Your task to perform on an android device: Do I have any events today? Image 0: 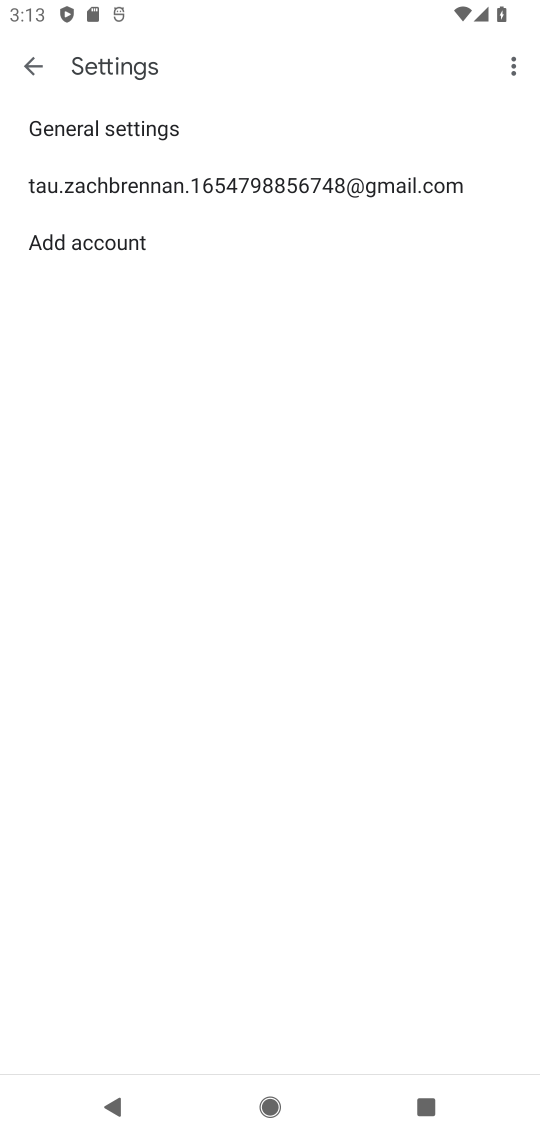
Step 0: press home button
Your task to perform on an android device: Do I have any events today? Image 1: 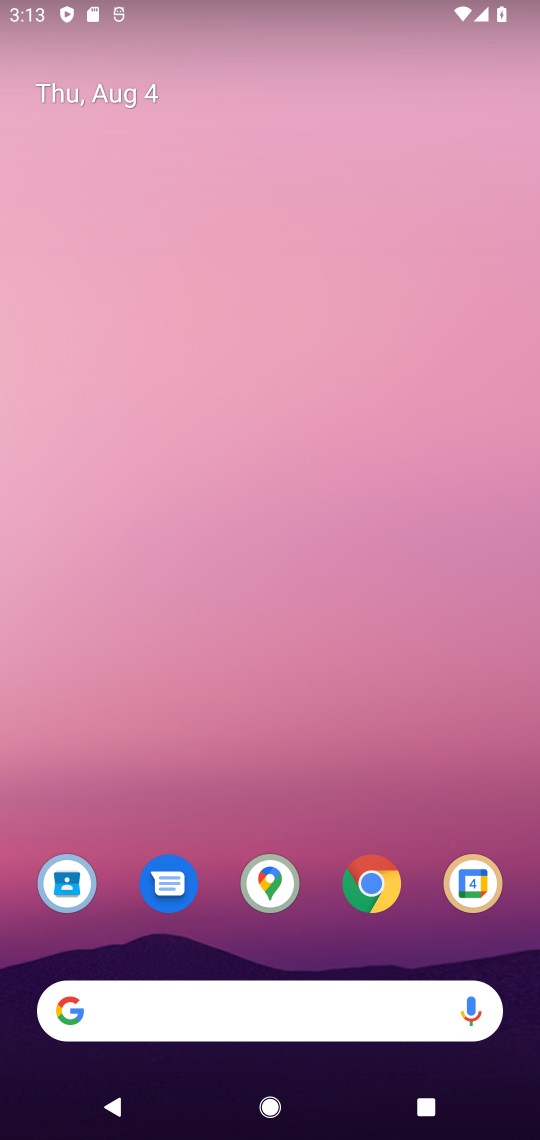
Step 1: drag from (421, 782) to (172, 100)
Your task to perform on an android device: Do I have any events today? Image 2: 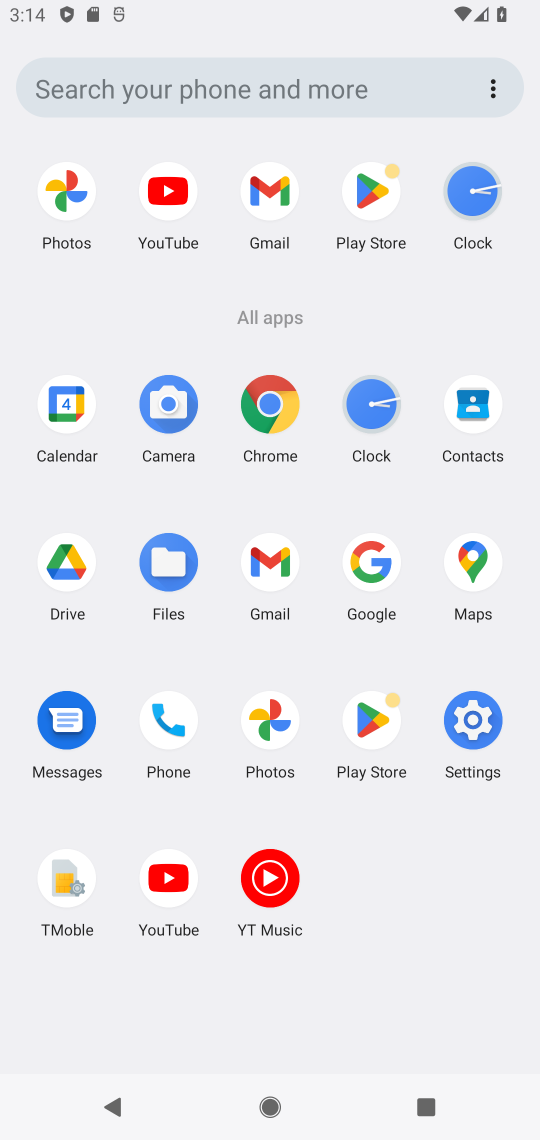
Step 2: click (86, 422)
Your task to perform on an android device: Do I have any events today? Image 3: 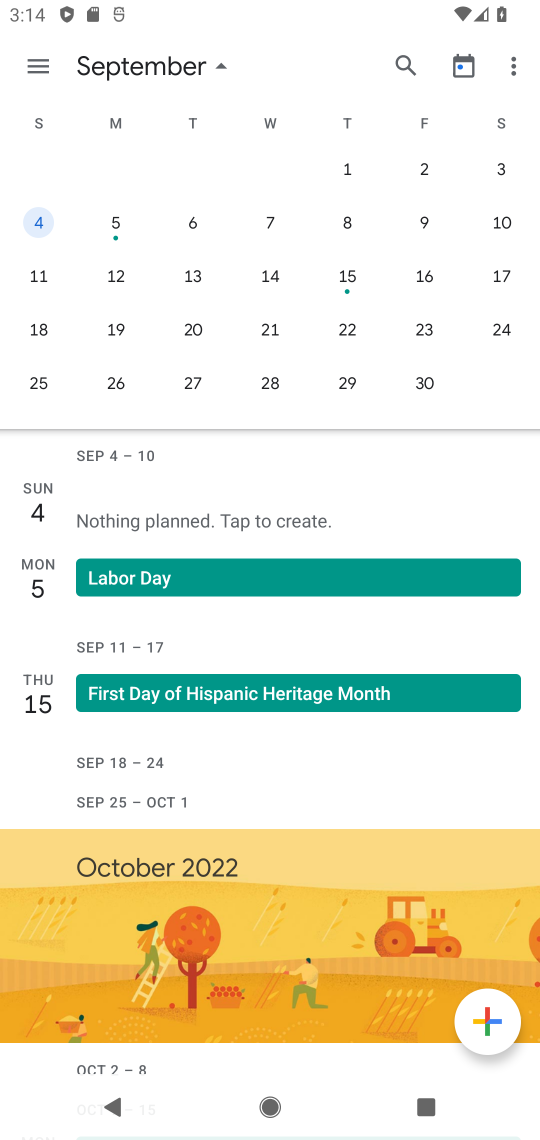
Step 3: task complete